Your task to perform on an android device: make emails show in primary in the gmail app Image 0: 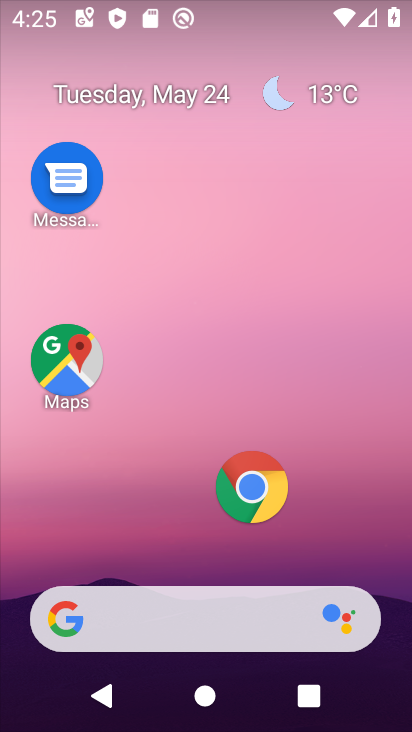
Step 0: drag from (206, 5) to (302, 6)
Your task to perform on an android device: make emails show in primary in the gmail app Image 1: 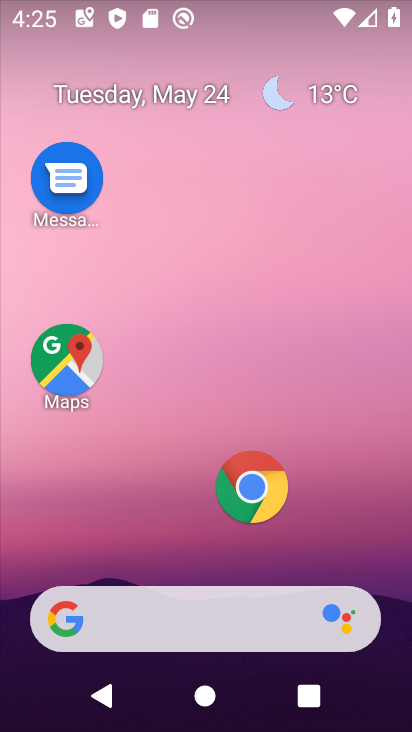
Step 1: drag from (199, 531) to (257, 29)
Your task to perform on an android device: make emails show in primary in the gmail app Image 2: 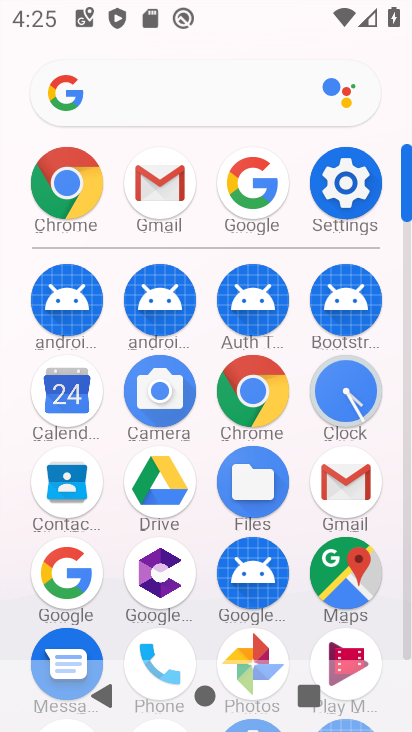
Step 2: click (161, 197)
Your task to perform on an android device: make emails show in primary in the gmail app Image 3: 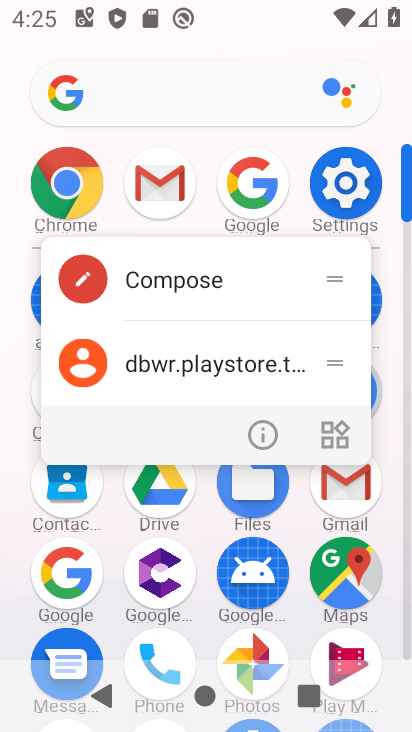
Step 3: click (163, 181)
Your task to perform on an android device: make emails show in primary in the gmail app Image 4: 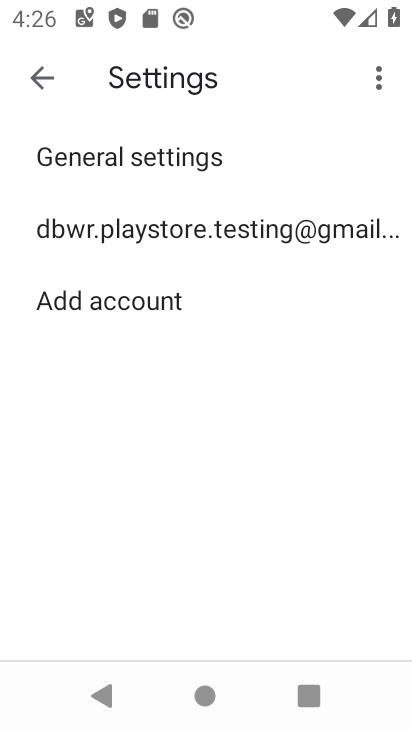
Step 4: click (176, 225)
Your task to perform on an android device: make emails show in primary in the gmail app Image 5: 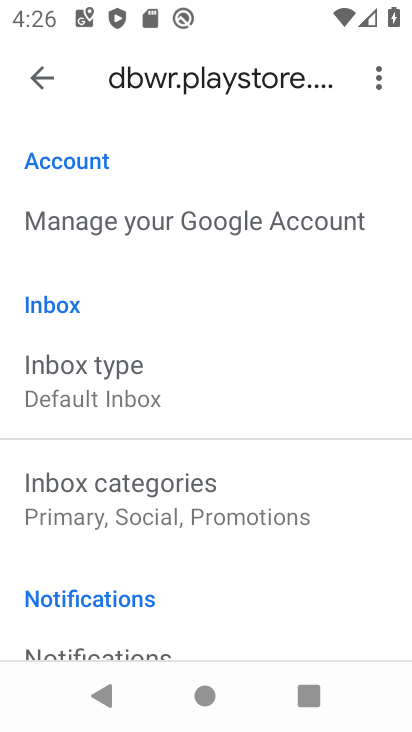
Step 5: click (172, 506)
Your task to perform on an android device: make emails show in primary in the gmail app Image 6: 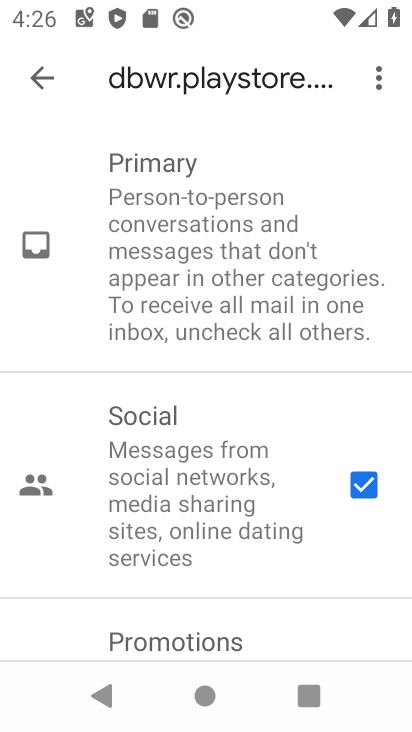
Step 6: click (363, 496)
Your task to perform on an android device: make emails show in primary in the gmail app Image 7: 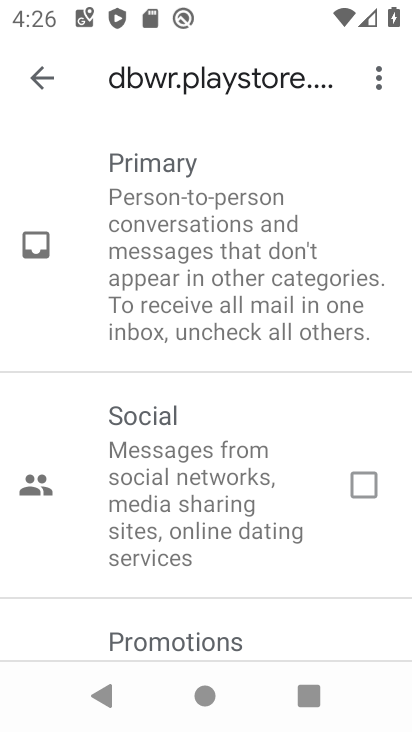
Step 7: drag from (190, 563) to (329, 22)
Your task to perform on an android device: make emails show in primary in the gmail app Image 8: 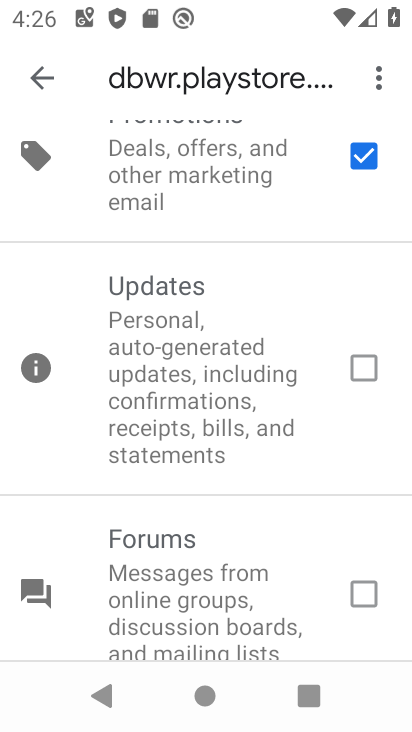
Step 8: click (367, 169)
Your task to perform on an android device: make emails show in primary in the gmail app Image 9: 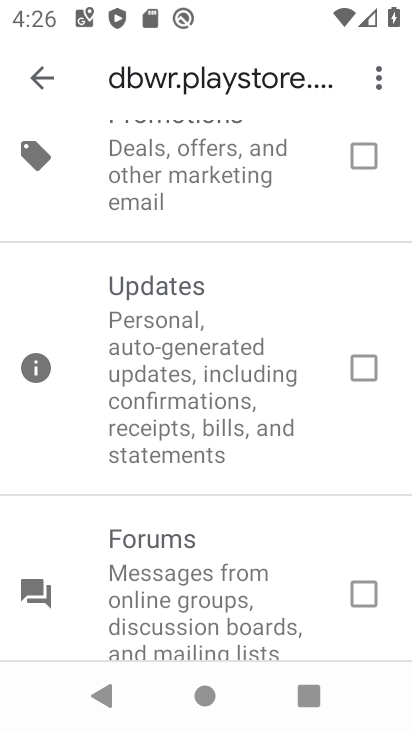
Step 9: task complete